Your task to perform on an android device: change the upload size in google photos Image 0: 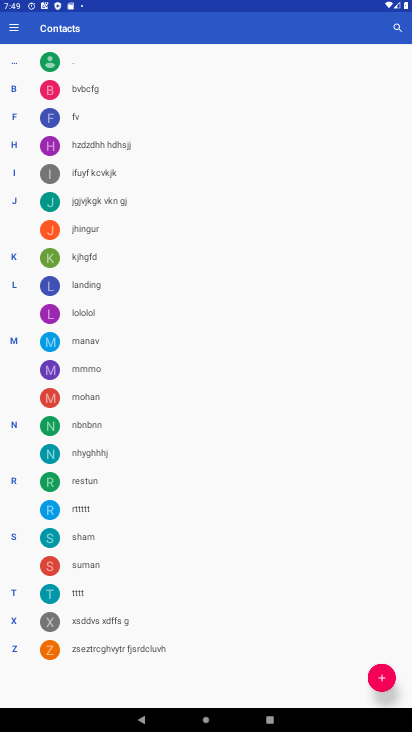
Step 0: press home button
Your task to perform on an android device: change the upload size in google photos Image 1: 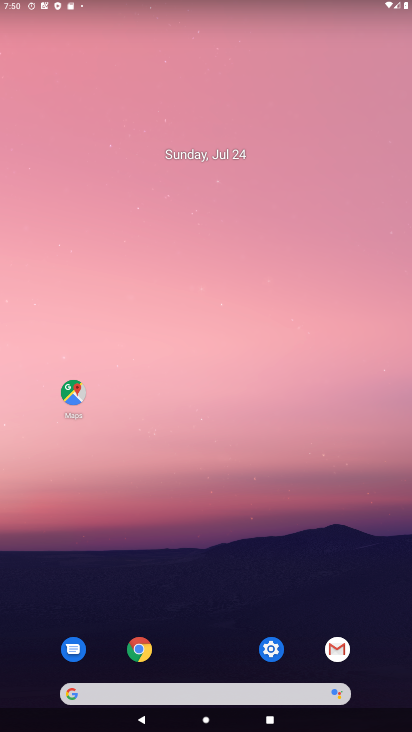
Step 1: drag from (273, 710) to (229, 256)
Your task to perform on an android device: change the upload size in google photos Image 2: 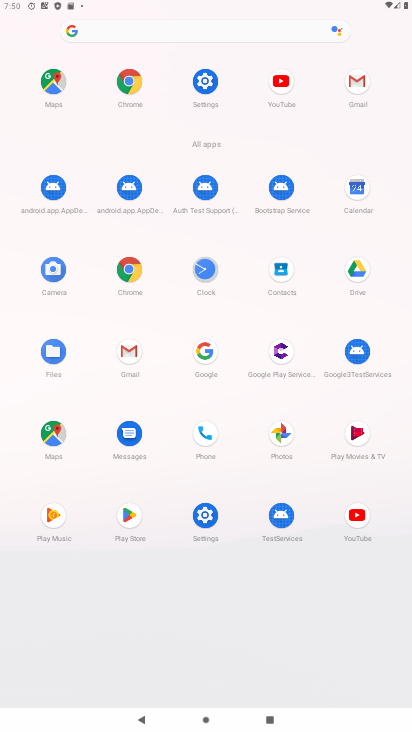
Step 2: click (276, 433)
Your task to perform on an android device: change the upload size in google photos Image 3: 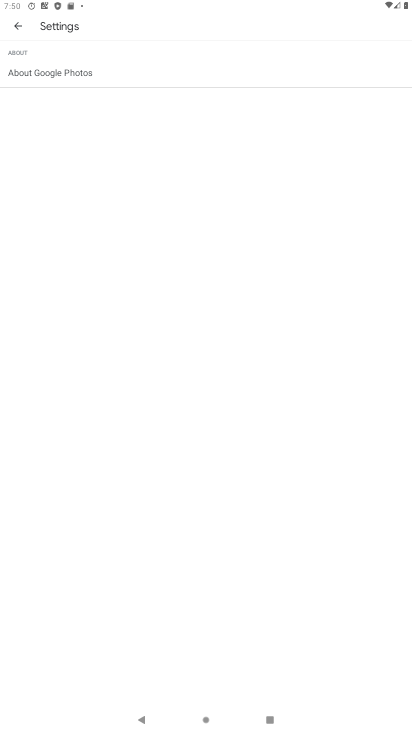
Step 3: click (19, 24)
Your task to perform on an android device: change the upload size in google photos Image 4: 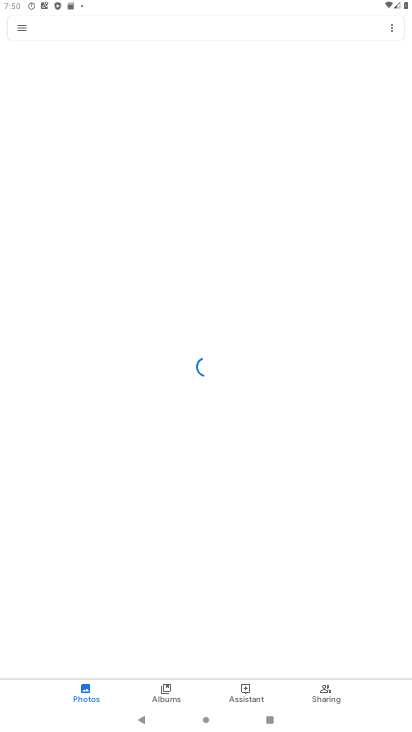
Step 4: click (390, 32)
Your task to perform on an android device: change the upload size in google photos Image 5: 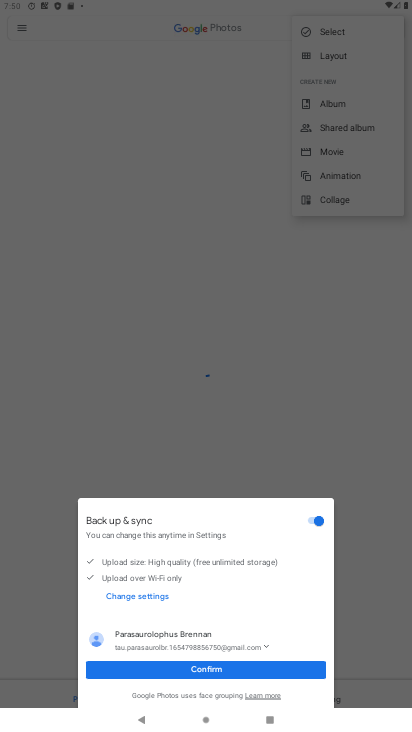
Step 5: click (214, 672)
Your task to perform on an android device: change the upload size in google photos Image 6: 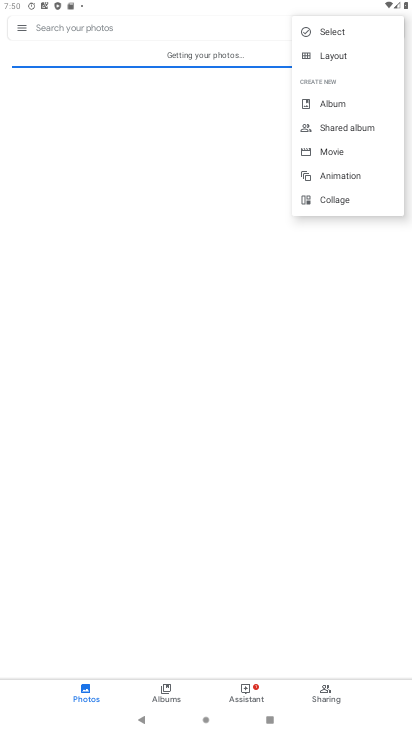
Step 6: click (157, 164)
Your task to perform on an android device: change the upload size in google photos Image 7: 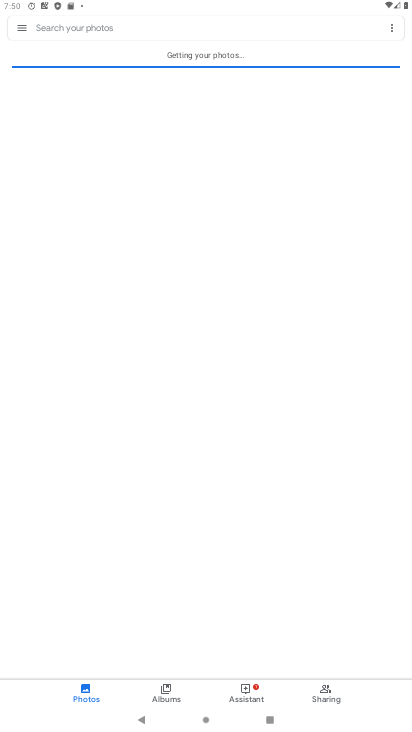
Step 7: click (24, 33)
Your task to perform on an android device: change the upload size in google photos Image 8: 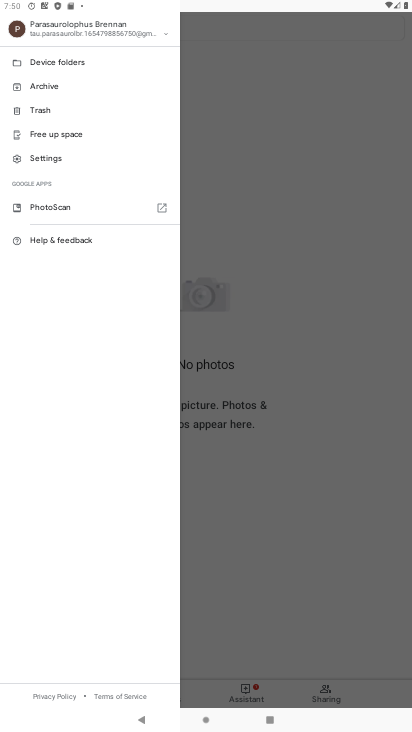
Step 8: click (46, 158)
Your task to perform on an android device: change the upload size in google photos Image 9: 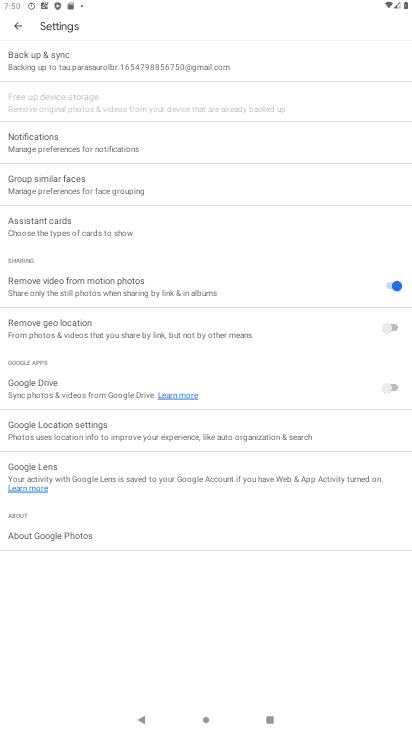
Step 9: click (75, 60)
Your task to perform on an android device: change the upload size in google photos Image 10: 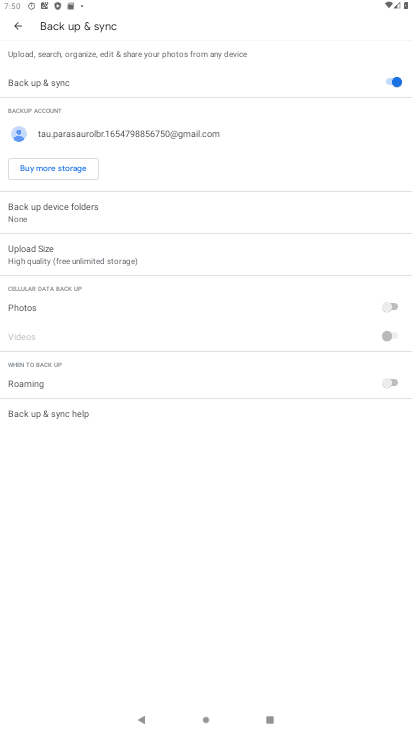
Step 10: click (109, 260)
Your task to perform on an android device: change the upload size in google photos Image 11: 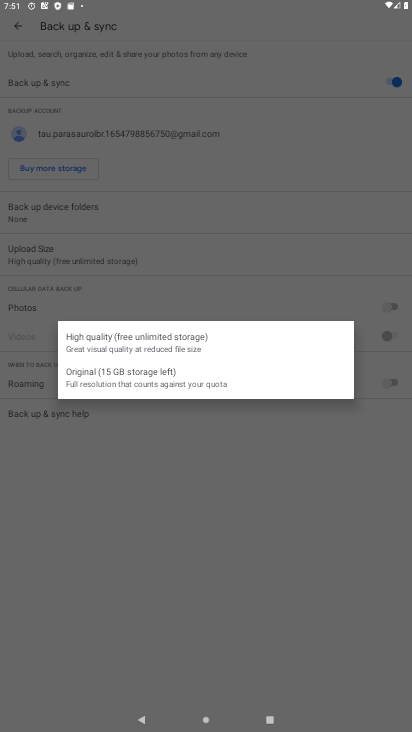
Step 11: task complete